Your task to perform on an android device: turn off location history Image 0: 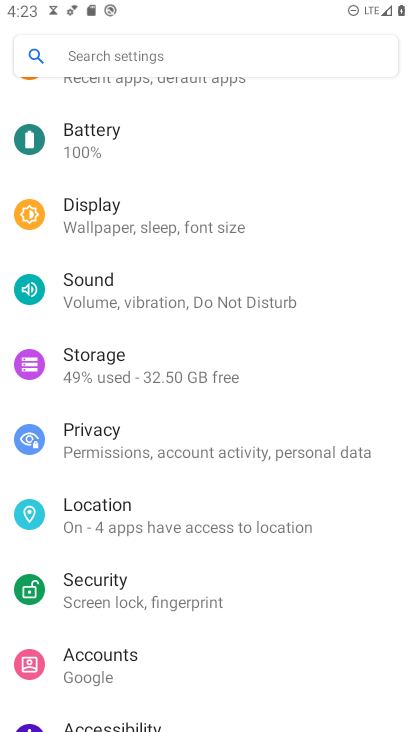
Step 0: press home button
Your task to perform on an android device: turn off location history Image 1: 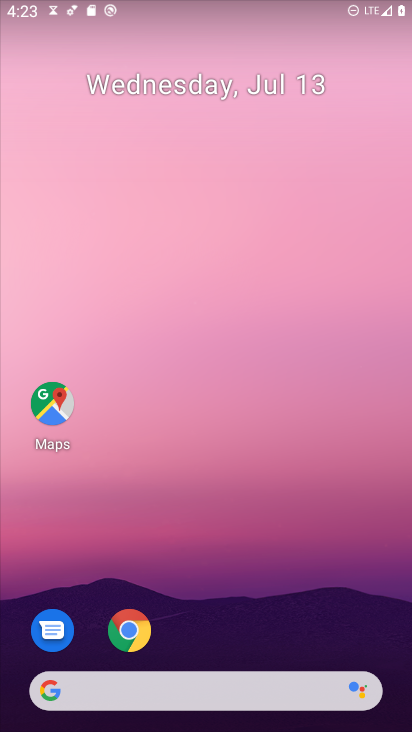
Step 1: drag from (256, 573) to (295, 94)
Your task to perform on an android device: turn off location history Image 2: 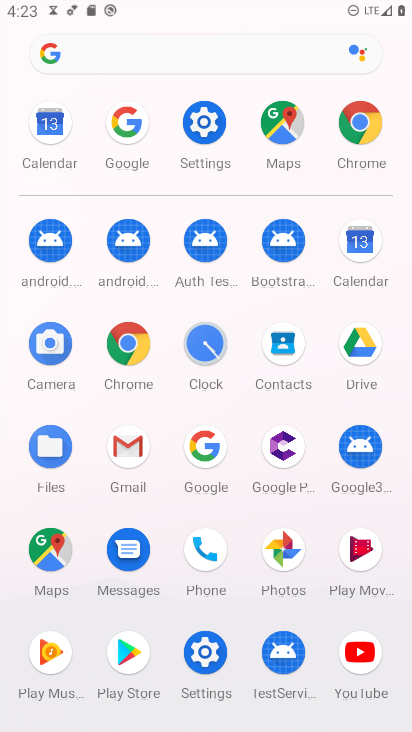
Step 2: click (215, 127)
Your task to perform on an android device: turn off location history Image 3: 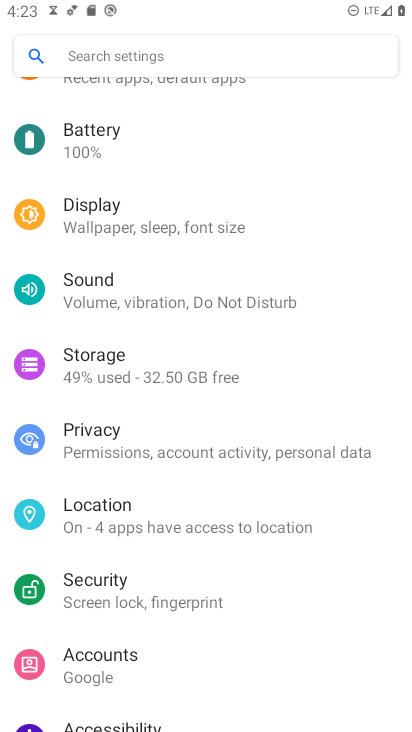
Step 3: click (96, 502)
Your task to perform on an android device: turn off location history Image 4: 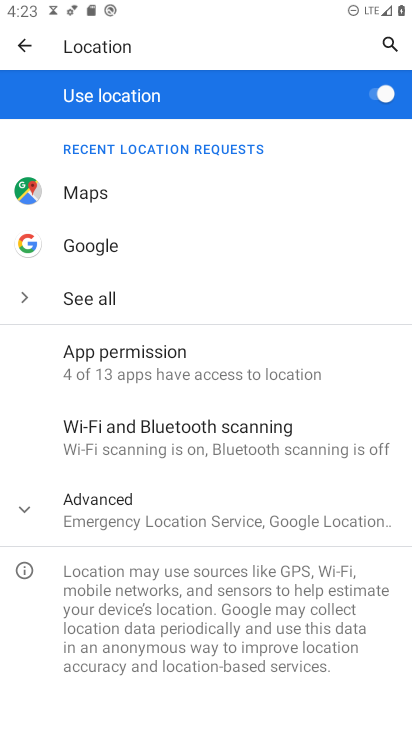
Step 4: click (31, 509)
Your task to perform on an android device: turn off location history Image 5: 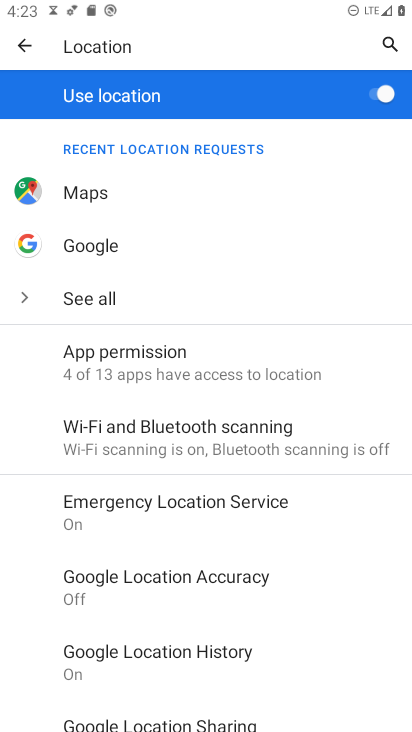
Step 5: click (189, 660)
Your task to perform on an android device: turn off location history Image 6: 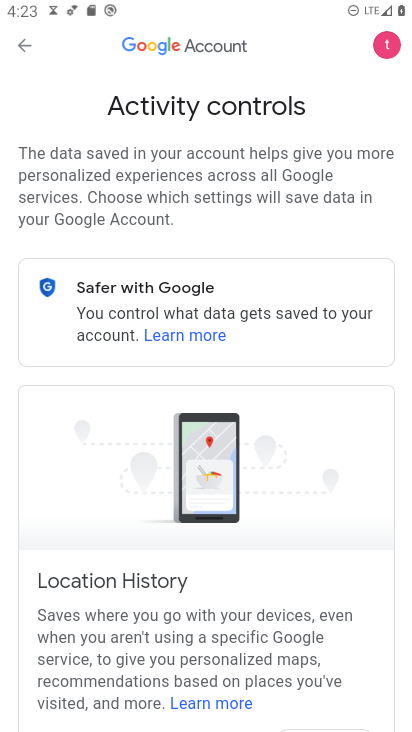
Step 6: drag from (343, 640) to (351, 315)
Your task to perform on an android device: turn off location history Image 7: 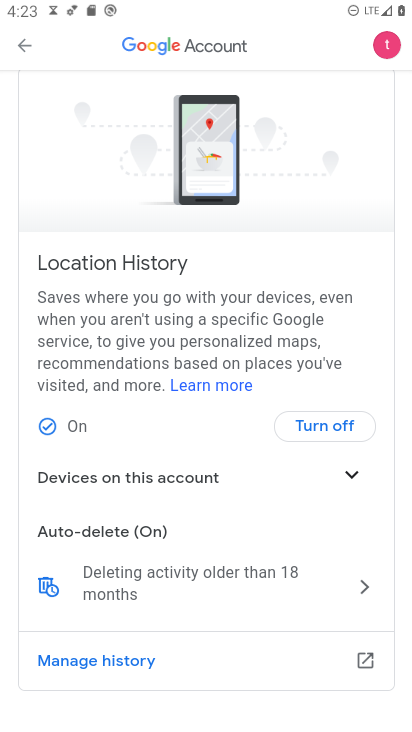
Step 7: click (339, 422)
Your task to perform on an android device: turn off location history Image 8: 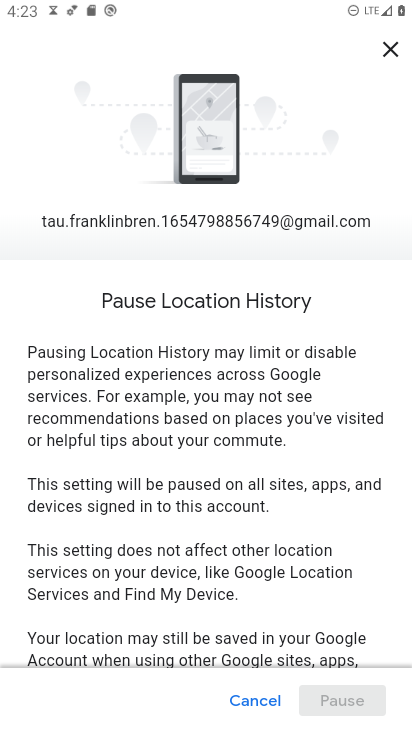
Step 8: drag from (335, 640) to (409, 332)
Your task to perform on an android device: turn off location history Image 9: 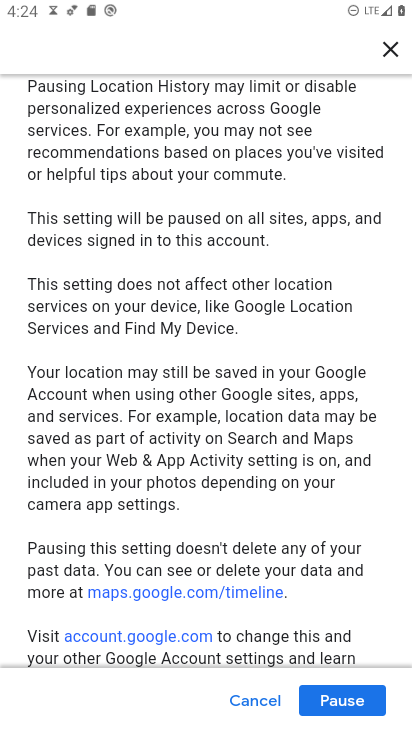
Step 9: click (352, 693)
Your task to perform on an android device: turn off location history Image 10: 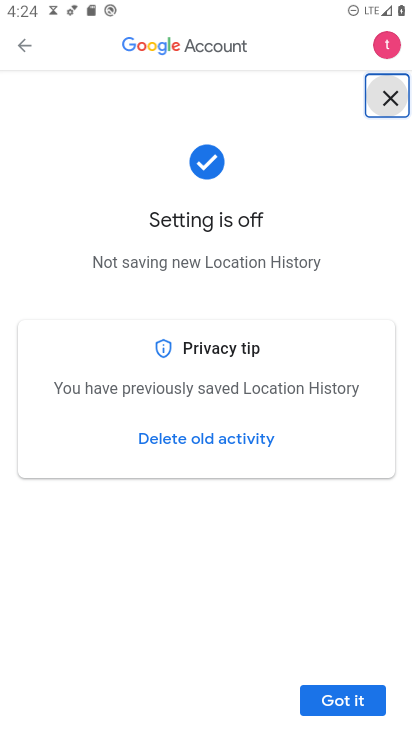
Step 10: click (358, 701)
Your task to perform on an android device: turn off location history Image 11: 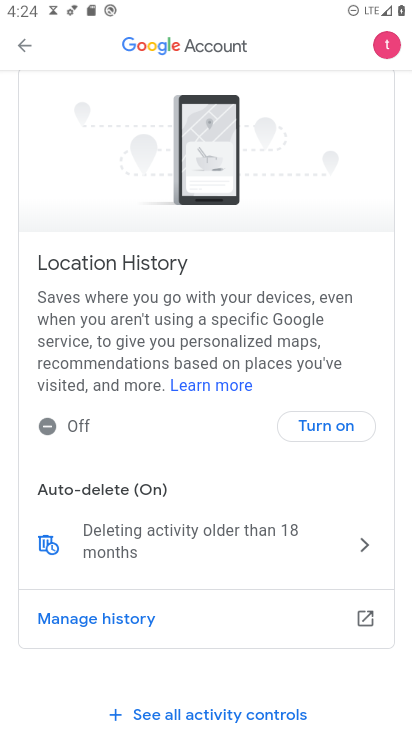
Step 11: task complete